Your task to perform on an android device: turn off improve location accuracy Image 0: 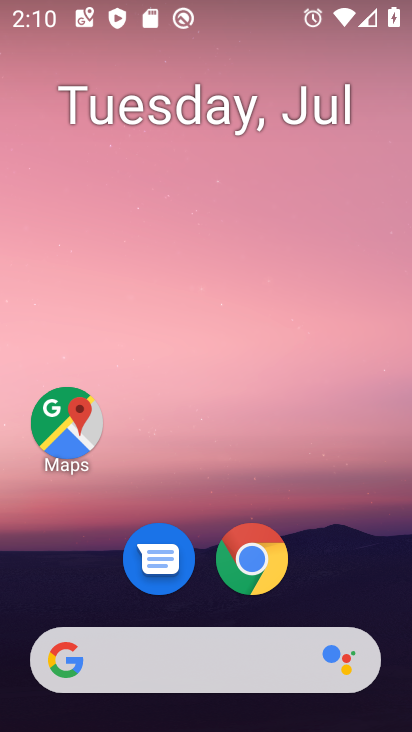
Step 0: press home button
Your task to perform on an android device: turn off improve location accuracy Image 1: 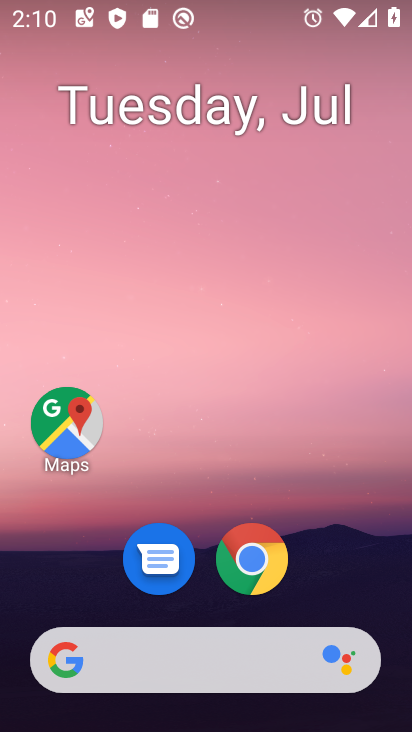
Step 1: drag from (319, 584) to (347, 160)
Your task to perform on an android device: turn off improve location accuracy Image 2: 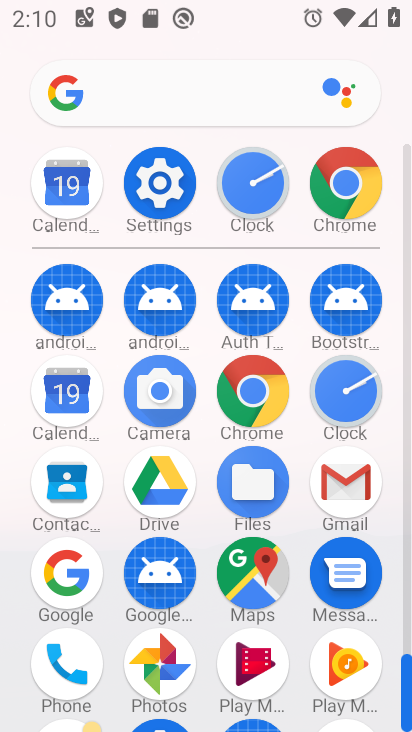
Step 2: click (178, 189)
Your task to perform on an android device: turn off improve location accuracy Image 3: 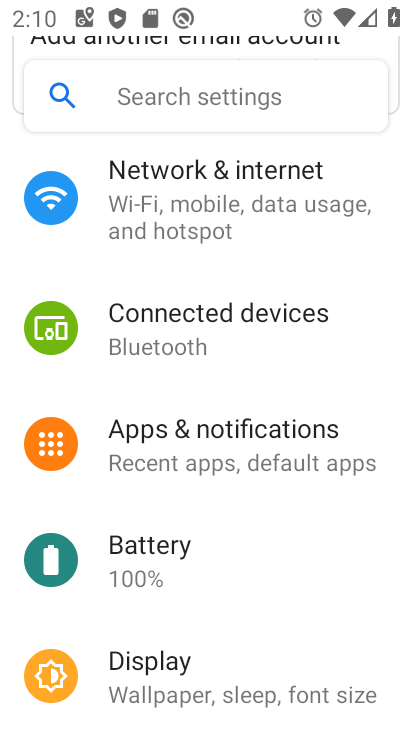
Step 3: drag from (380, 573) to (379, 465)
Your task to perform on an android device: turn off improve location accuracy Image 4: 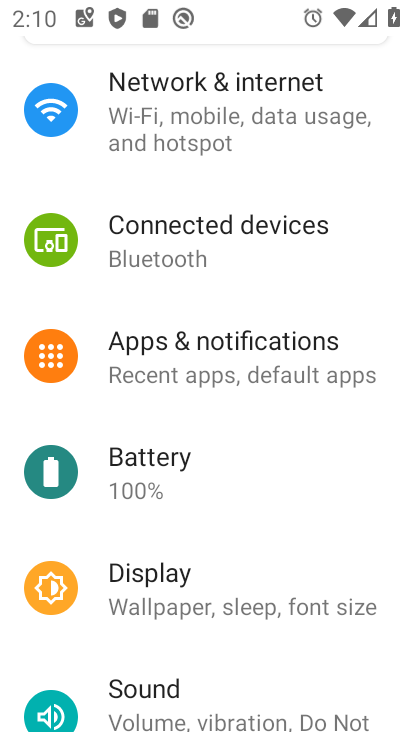
Step 4: drag from (361, 641) to (363, 543)
Your task to perform on an android device: turn off improve location accuracy Image 5: 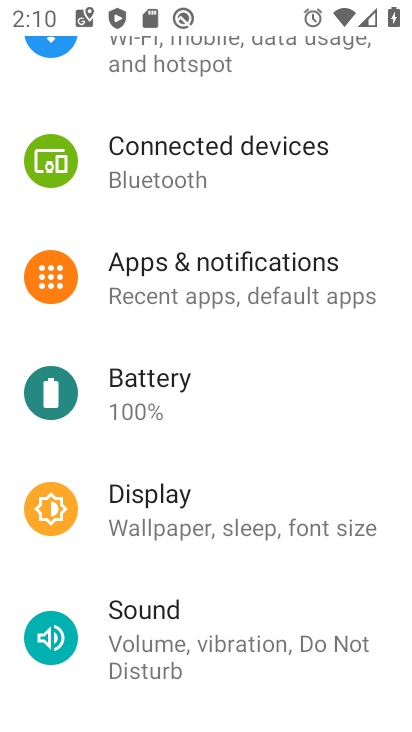
Step 5: drag from (360, 675) to (360, 578)
Your task to perform on an android device: turn off improve location accuracy Image 6: 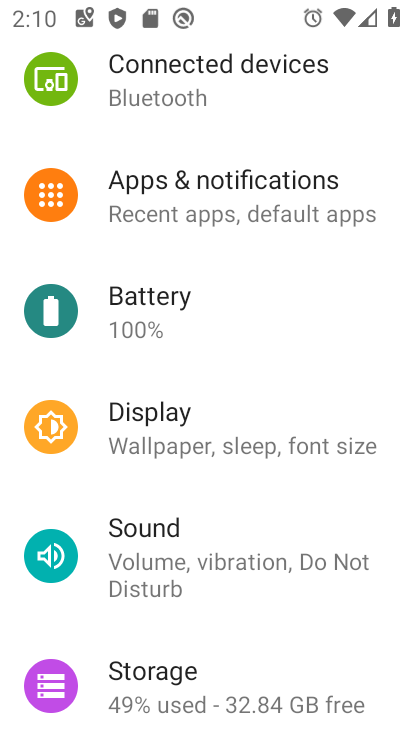
Step 6: drag from (353, 635) to (353, 532)
Your task to perform on an android device: turn off improve location accuracy Image 7: 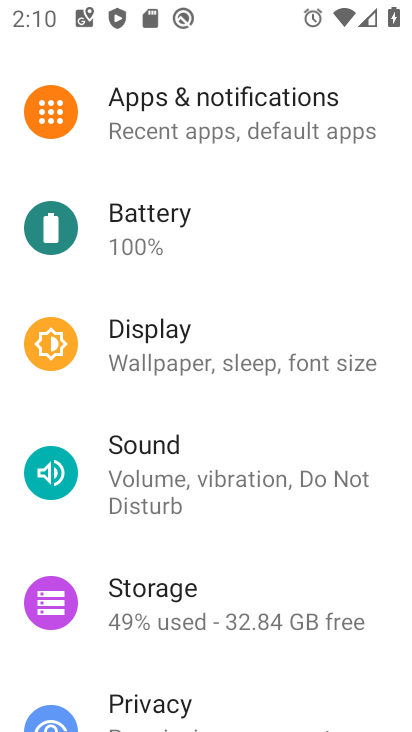
Step 7: drag from (357, 639) to (359, 537)
Your task to perform on an android device: turn off improve location accuracy Image 8: 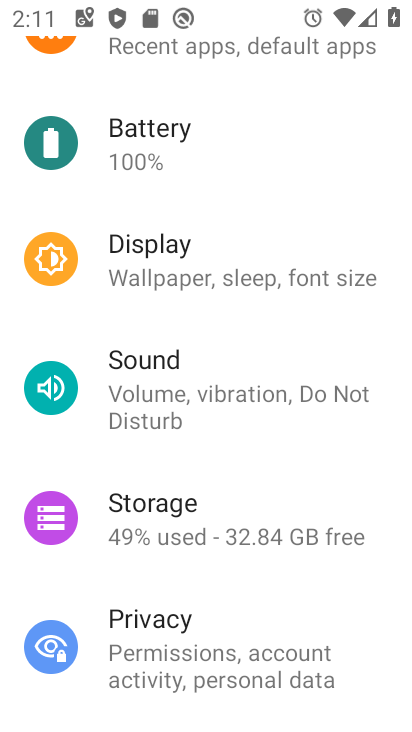
Step 8: drag from (369, 652) to (362, 534)
Your task to perform on an android device: turn off improve location accuracy Image 9: 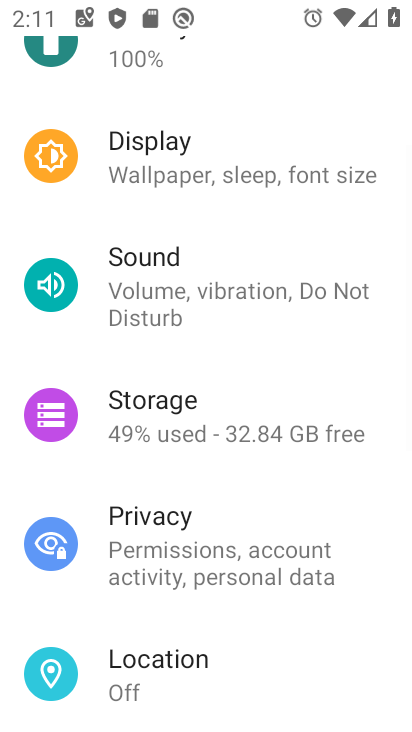
Step 9: drag from (351, 626) to (358, 548)
Your task to perform on an android device: turn off improve location accuracy Image 10: 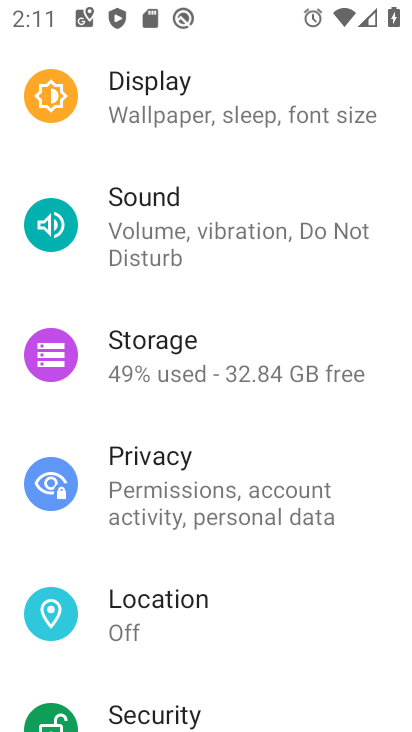
Step 10: drag from (341, 616) to (343, 493)
Your task to perform on an android device: turn off improve location accuracy Image 11: 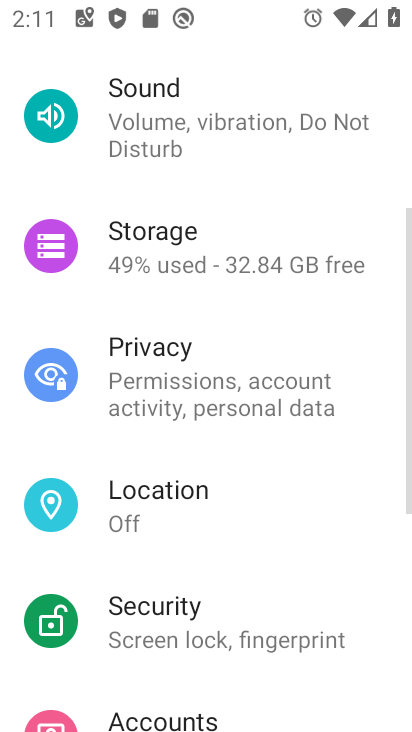
Step 11: drag from (347, 600) to (344, 504)
Your task to perform on an android device: turn off improve location accuracy Image 12: 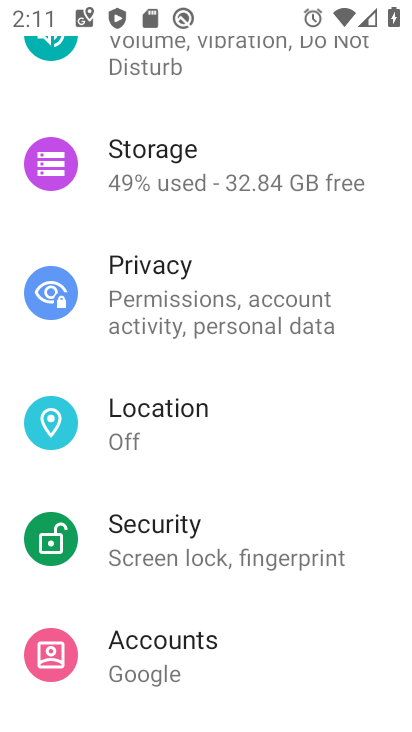
Step 12: click (199, 408)
Your task to perform on an android device: turn off improve location accuracy Image 13: 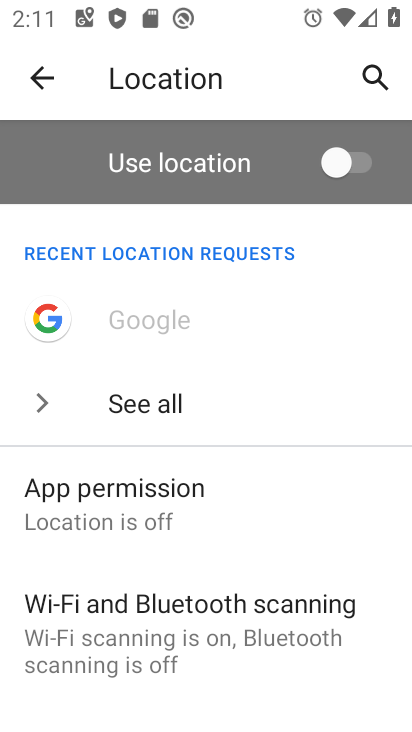
Step 13: drag from (252, 532) to (259, 447)
Your task to perform on an android device: turn off improve location accuracy Image 14: 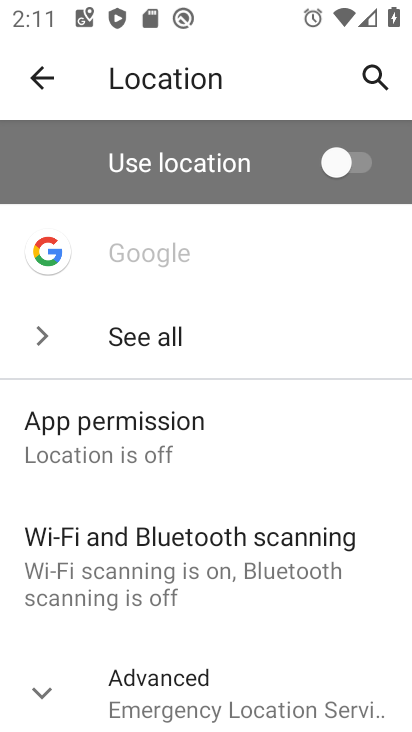
Step 14: drag from (286, 610) to (289, 485)
Your task to perform on an android device: turn off improve location accuracy Image 15: 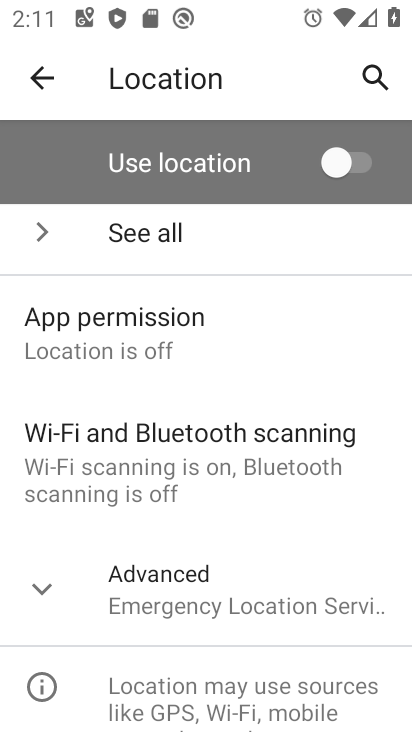
Step 15: drag from (281, 634) to (289, 505)
Your task to perform on an android device: turn off improve location accuracy Image 16: 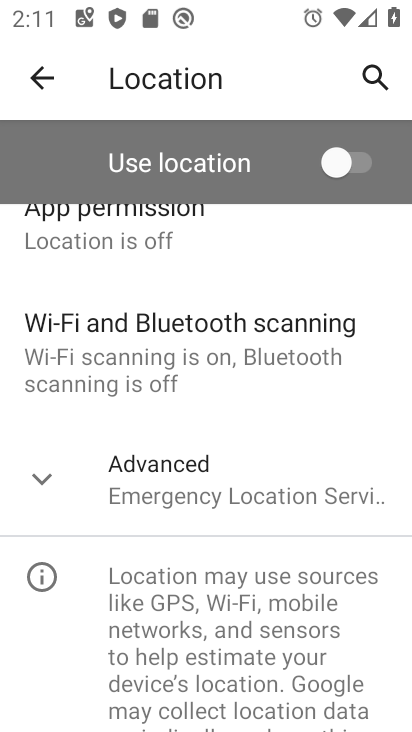
Step 16: click (256, 487)
Your task to perform on an android device: turn off improve location accuracy Image 17: 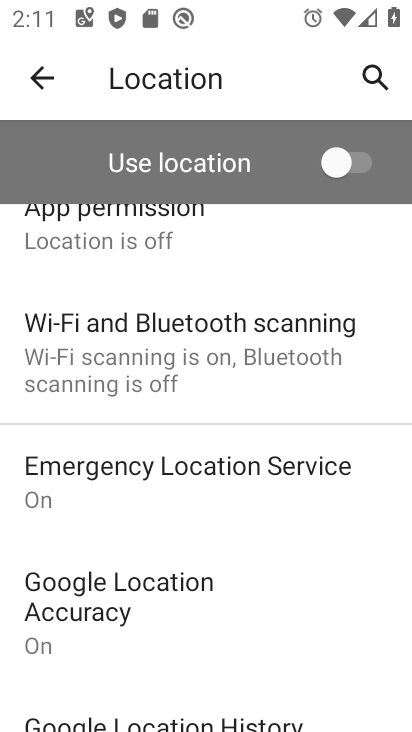
Step 17: drag from (281, 586) to (285, 506)
Your task to perform on an android device: turn off improve location accuracy Image 18: 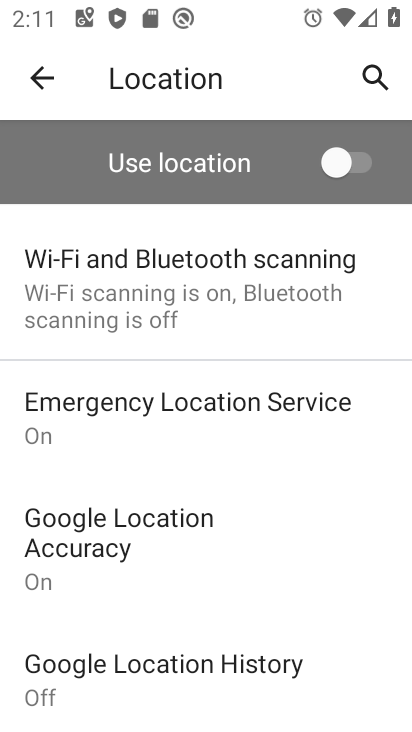
Step 18: drag from (269, 583) to (275, 511)
Your task to perform on an android device: turn off improve location accuracy Image 19: 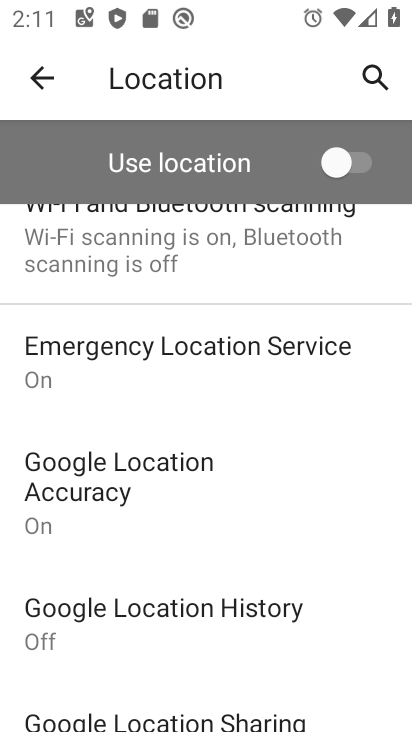
Step 19: drag from (298, 646) to (306, 560)
Your task to perform on an android device: turn off improve location accuracy Image 20: 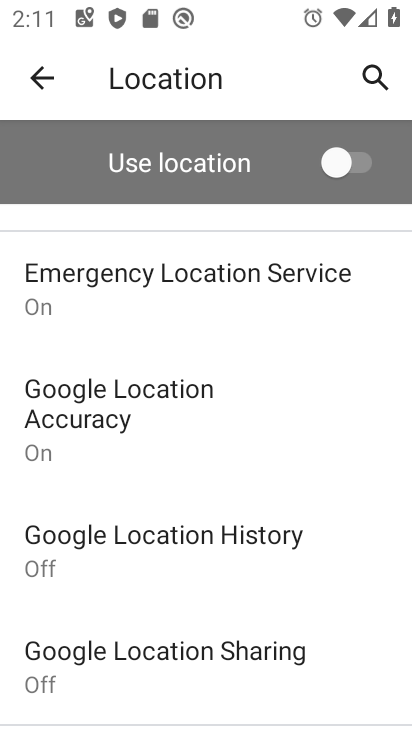
Step 20: drag from (327, 669) to (327, 573)
Your task to perform on an android device: turn off improve location accuracy Image 21: 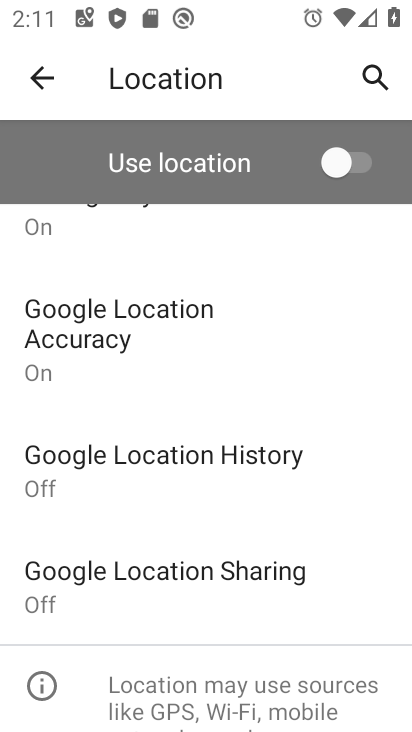
Step 21: drag from (318, 628) to (324, 563)
Your task to perform on an android device: turn off improve location accuracy Image 22: 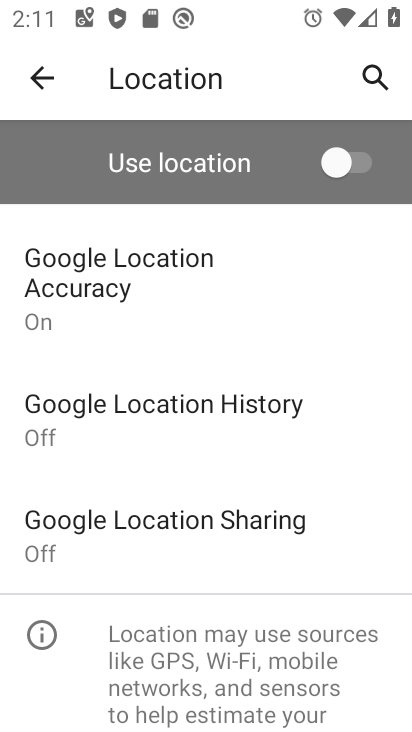
Step 22: click (200, 281)
Your task to perform on an android device: turn off improve location accuracy Image 23: 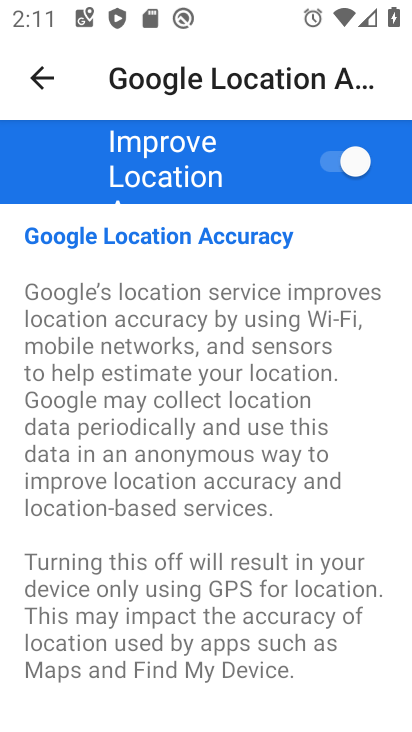
Step 23: click (332, 163)
Your task to perform on an android device: turn off improve location accuracy Image 24: 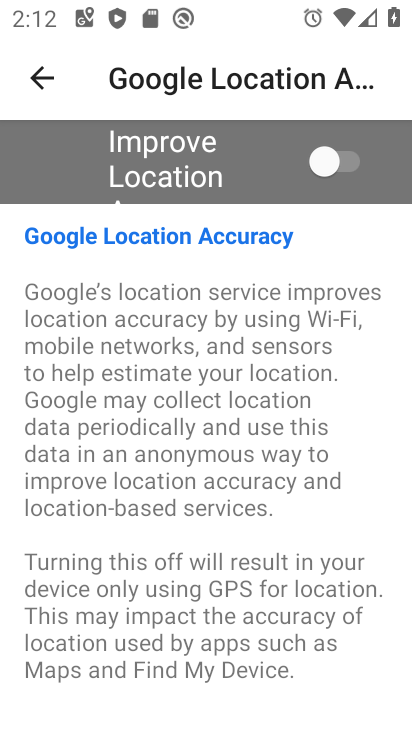
Step 24: task complete